Your task to perform on an android device: turn off airplane mode Image 0: 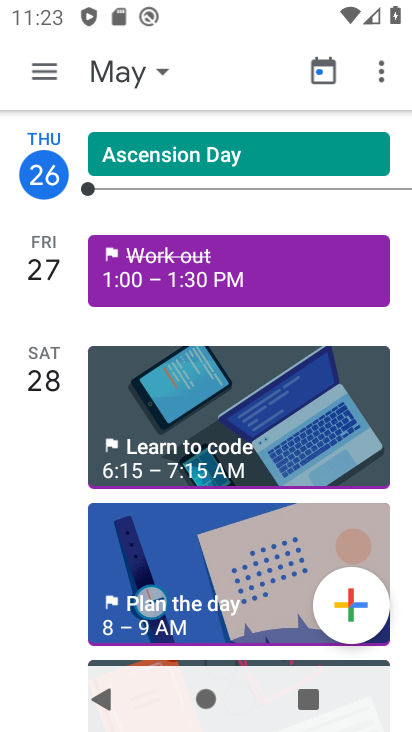
Step 0: press home button
Your task to perform on an android device: turn off airplane mode Image 1: 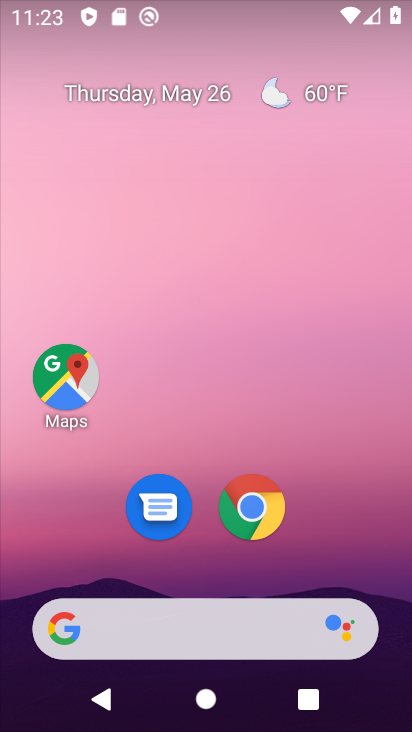
Step 1: drag from (374, 16) to (306, 193)
Your task to perform on an android device: turn off airplane mode Image 2: 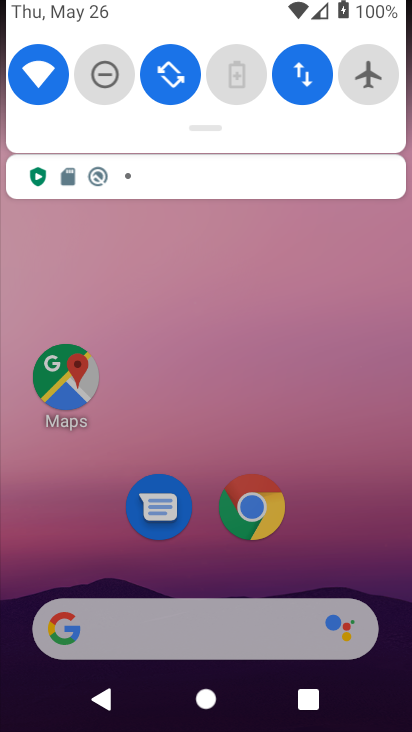
Step 2: click (305, 198)
Your task to perform on an android device: turn off airplane mode Image 3: 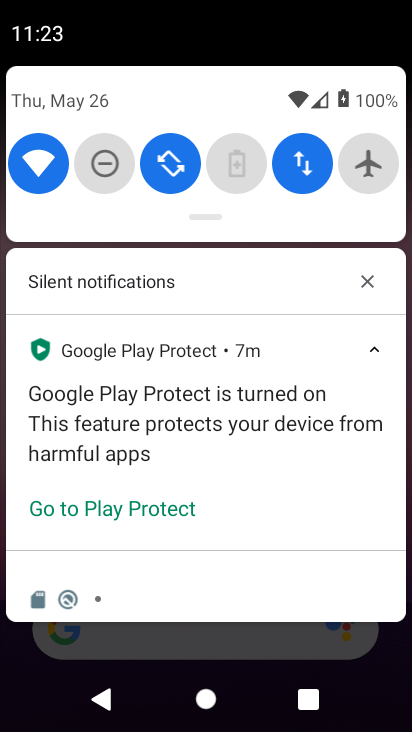
Step 3: task complete